Your task to perform on an android device: Go to privacy settings Image 0: 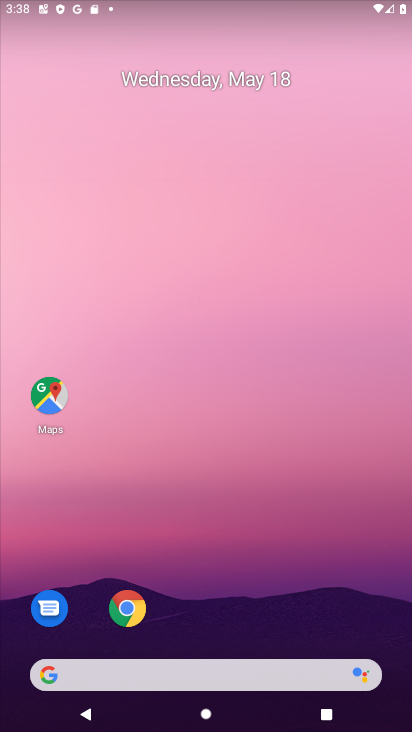
Step 0: drag from (227, 605) to (255, 229)
Your task to perform on an android device: Go to privacy settings Image 1: 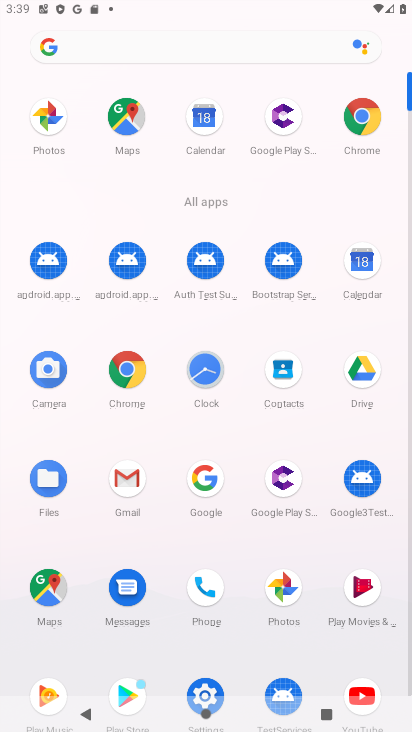
Step 1: drag from (224, 652) to (242, 523)
Your task to perform on an android device: Go to privacy settings Image 2: 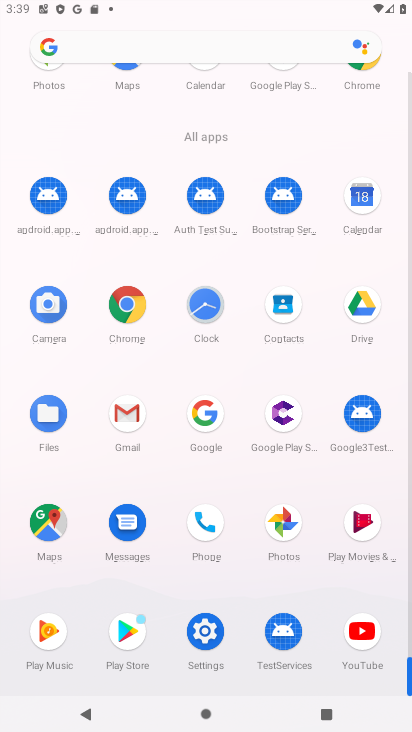
Step 2: click (209, 621)
Your task to perform on an android device: Go to privacy settings Image 3: 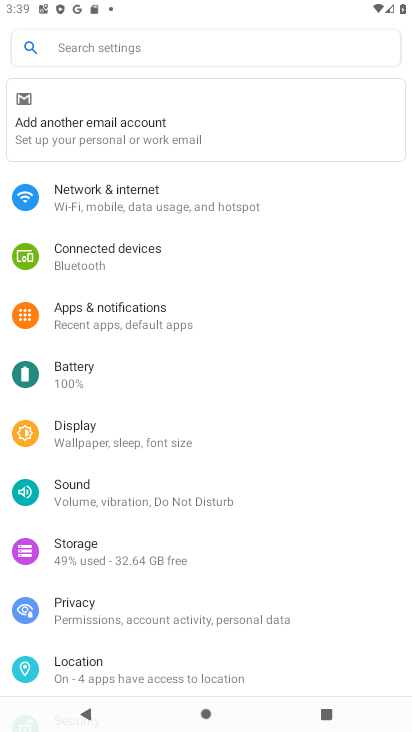
Step 3: click (188, 616)
Your task to perform on an android device: Go to privacy settings Image 4: 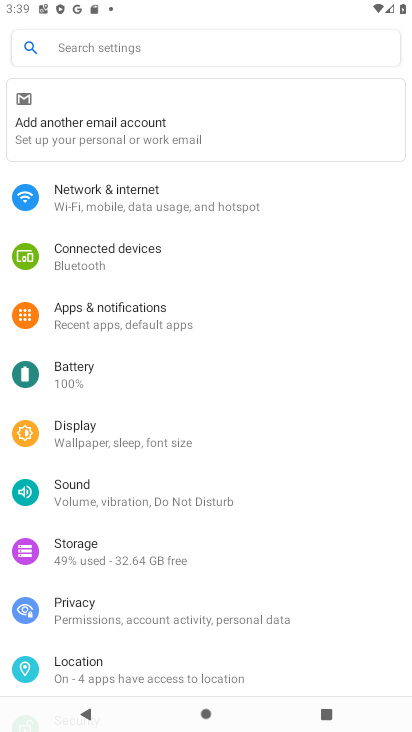
Step 4: click (178, 623)
Your task to perform on an android device: Go to privacy settings Image 5: 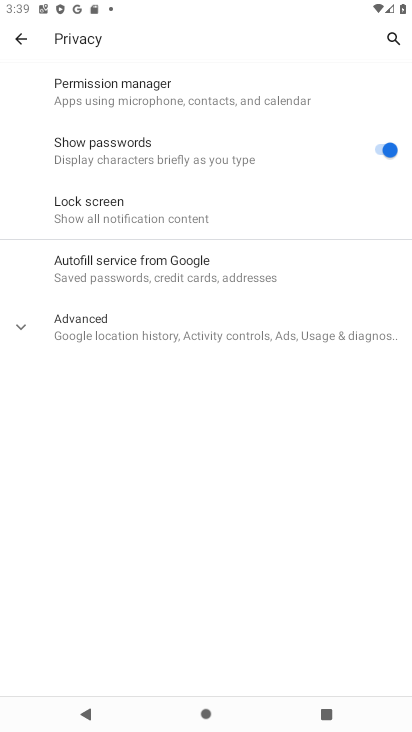
Step 5: task complete